Your task to perform on an android device: Open my contact list Image 0: 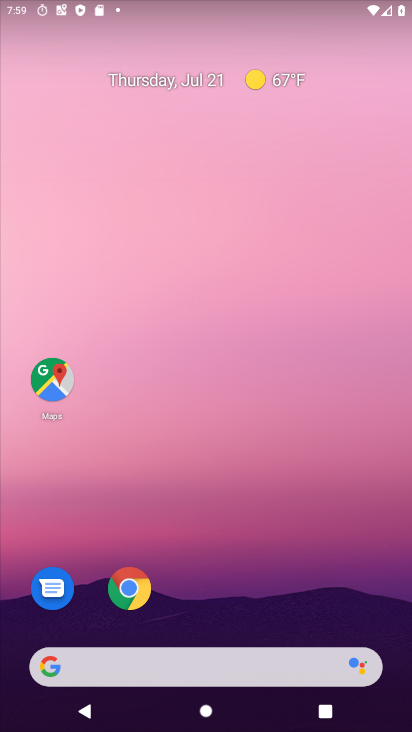
Step 0: drag from (222, 511) to (285, 122)
Your task to perform on an android device: Open my contact list Image 1: 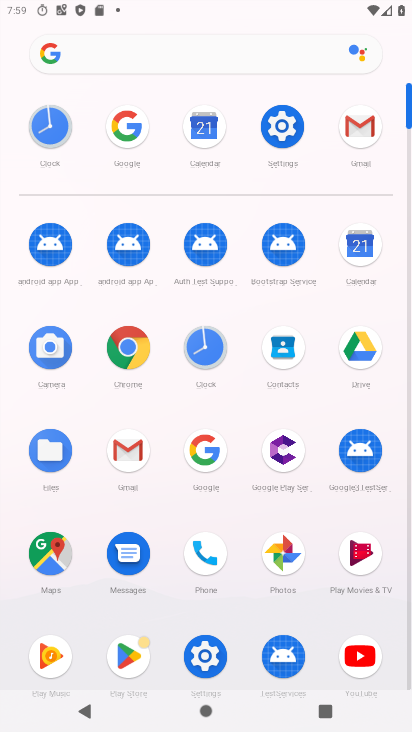
Step 1: click (282, 359)
Your task to perform on an android device: Open my contact list Image 2: 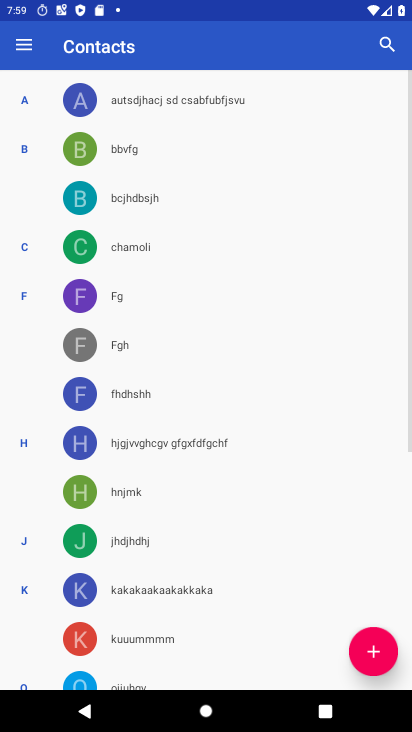
Step 2: task complete